Your task to perform on an android device: Open maps Image 0: 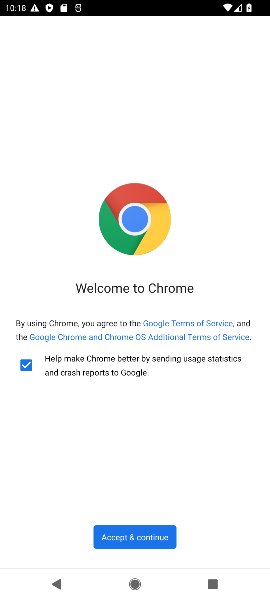
Step 0: press home button
Your task to perform on an android device: Open maps Image 1: 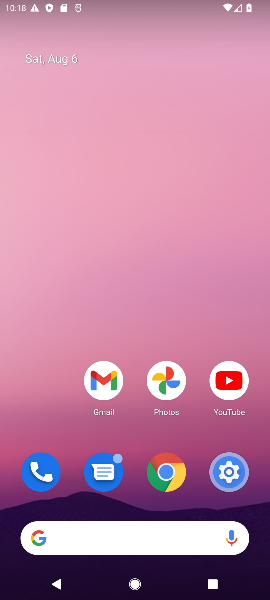
Step 1: drag from (212, 496) to (158, 104)
Your task to perform on an android device: Open maps Image 2: 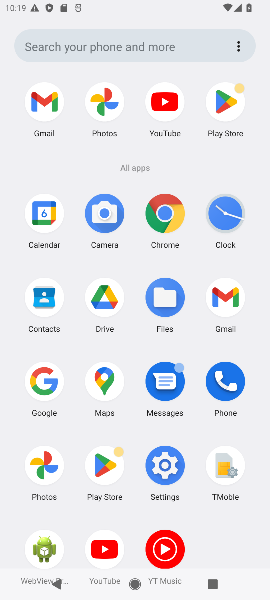
Step 2: click (105, 388)
Your task to perform on an android device: Open maps Image 3: 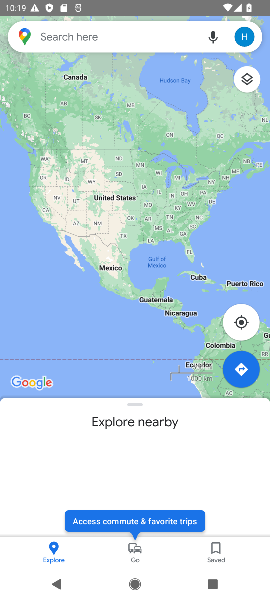
Step 3: task complete